Your task to perform on an android device: install app "Mercado Libre" Image 0: 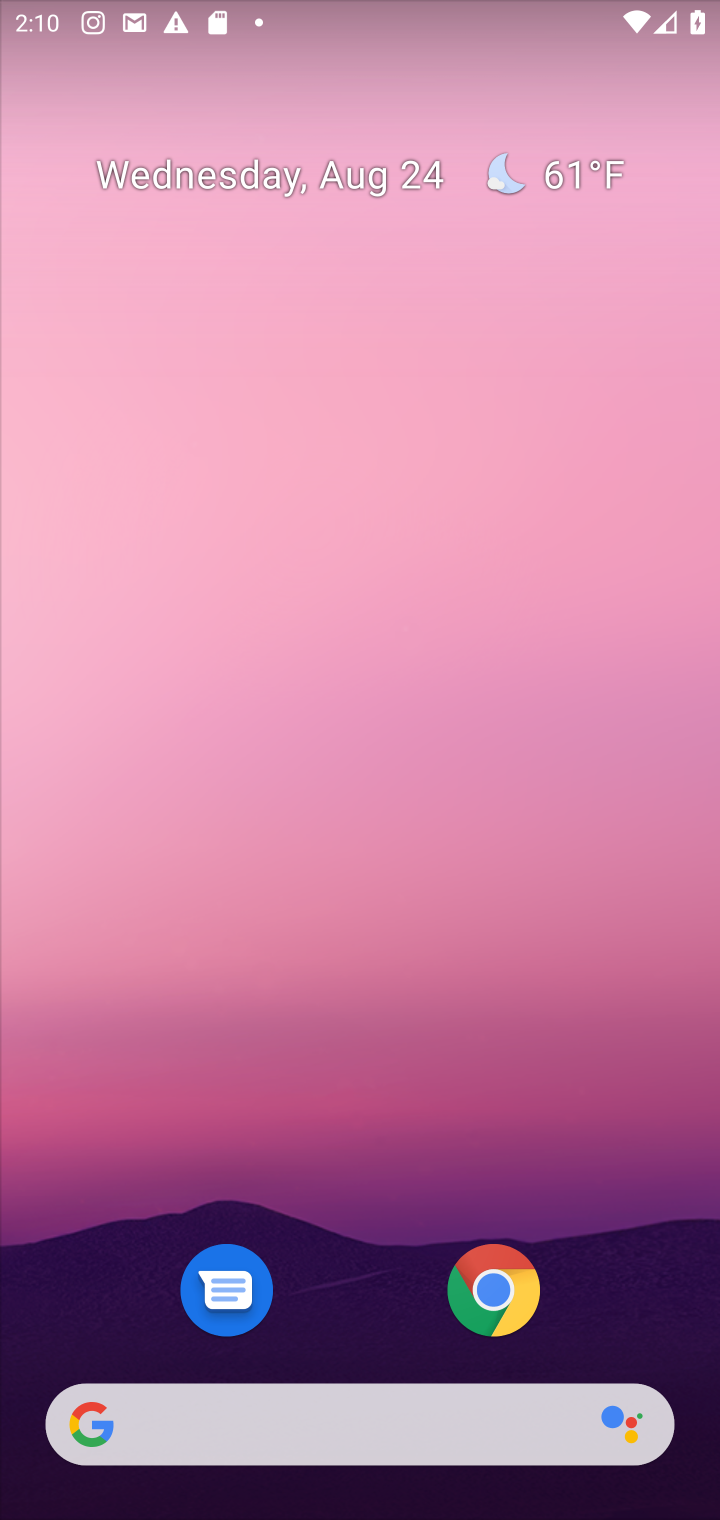
Step 0: drag from (347, 928) to (314, 79)
Your task to perform on an android device: install app "Mercado Libre" Image 1: 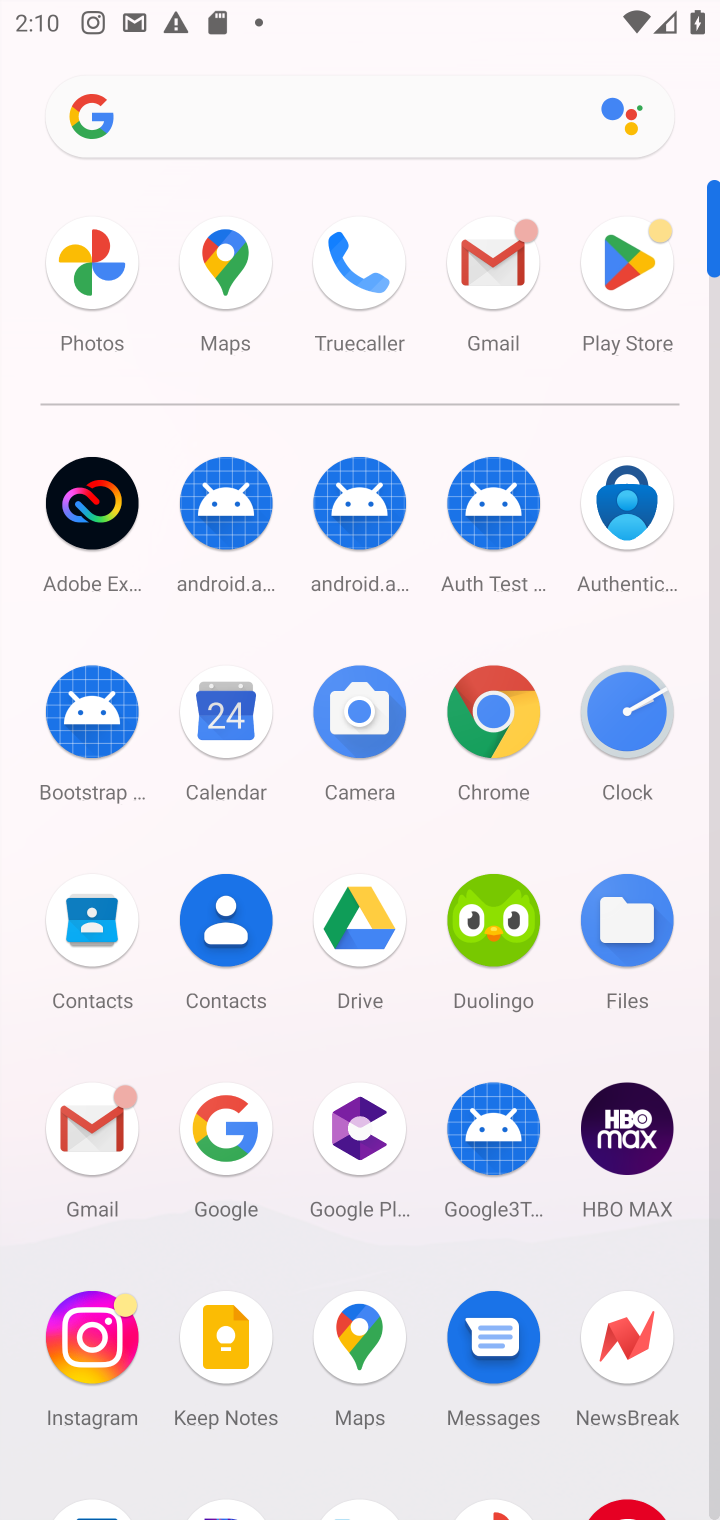
Step 1: click (624, 259)
Your task to perform on an android device: install app "Mercado Libre" Image 2: 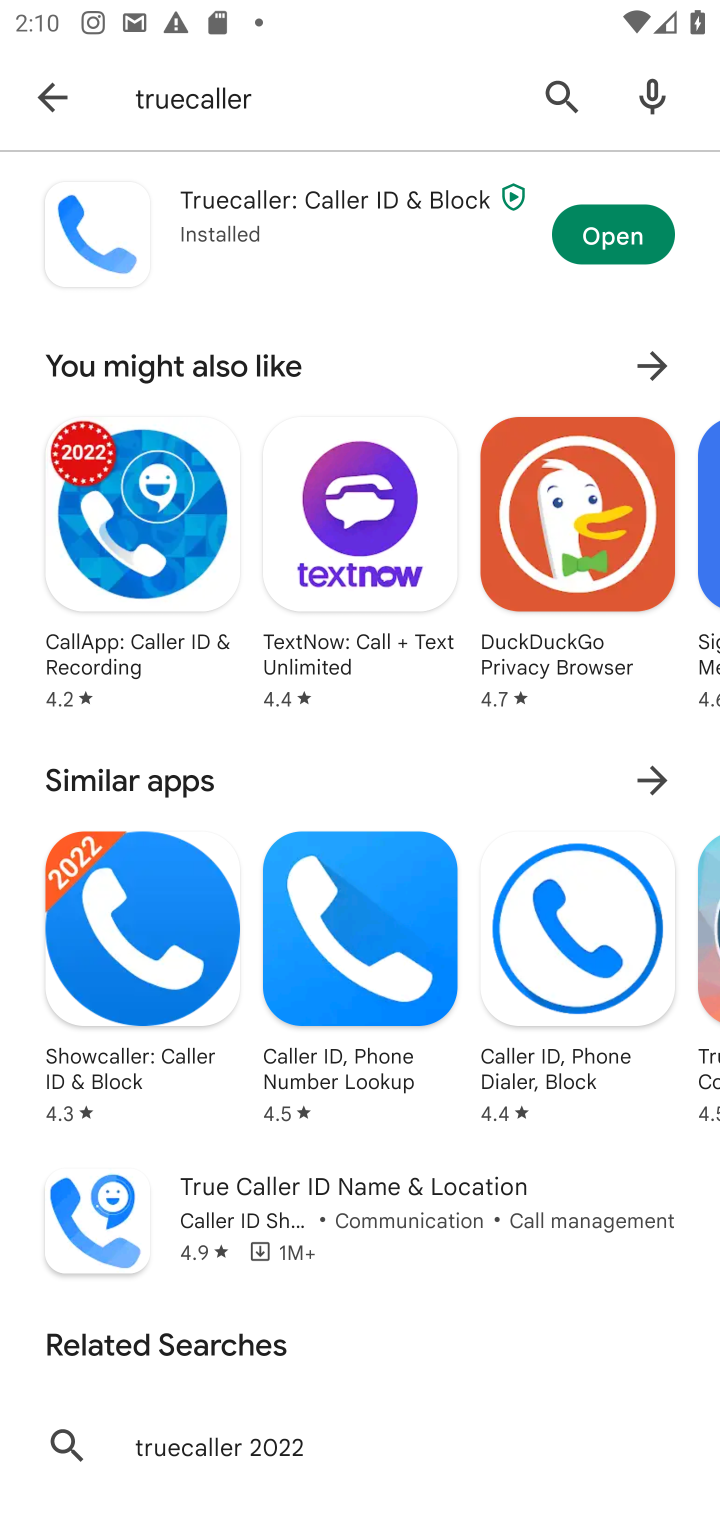
Step 2: click (39, 98)
Your task to perform on an android device: install app "Mercado Libre" Image 3: 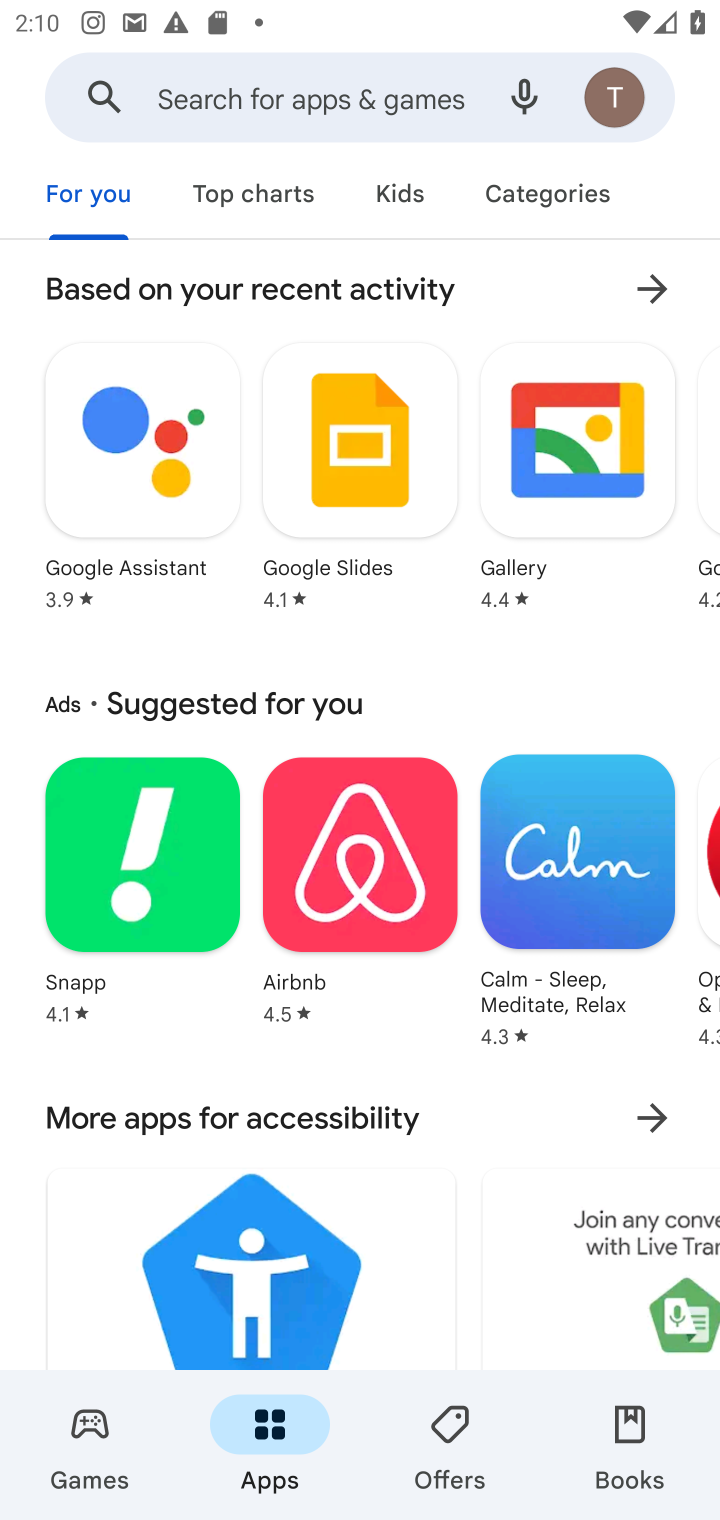
Step 3: click (265, 111)
Your task to perform on an android device: install app "Mercado Libre" Image 4: 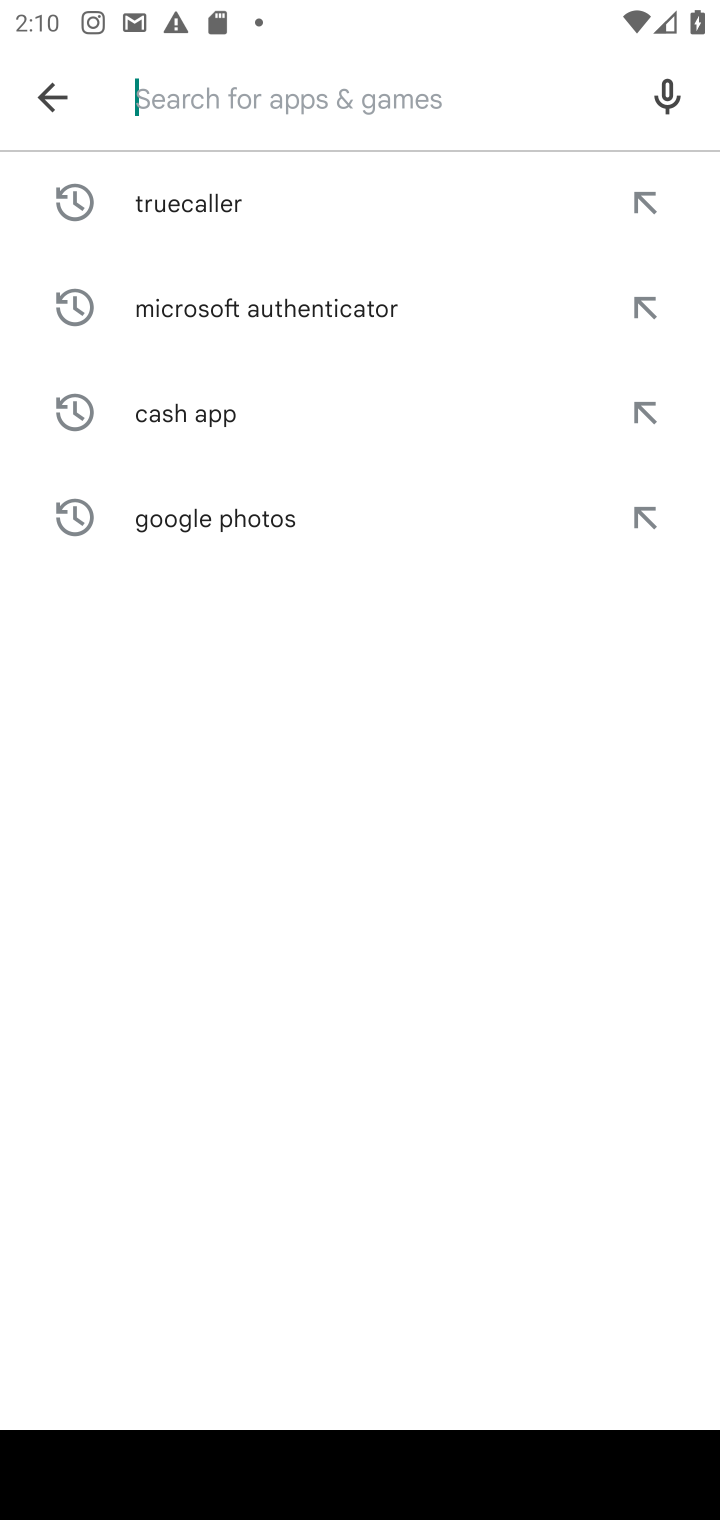
Step 4: type "Mercado Libre"
Your task to perform on an android device: install app "Mercado Libre" Image 5: 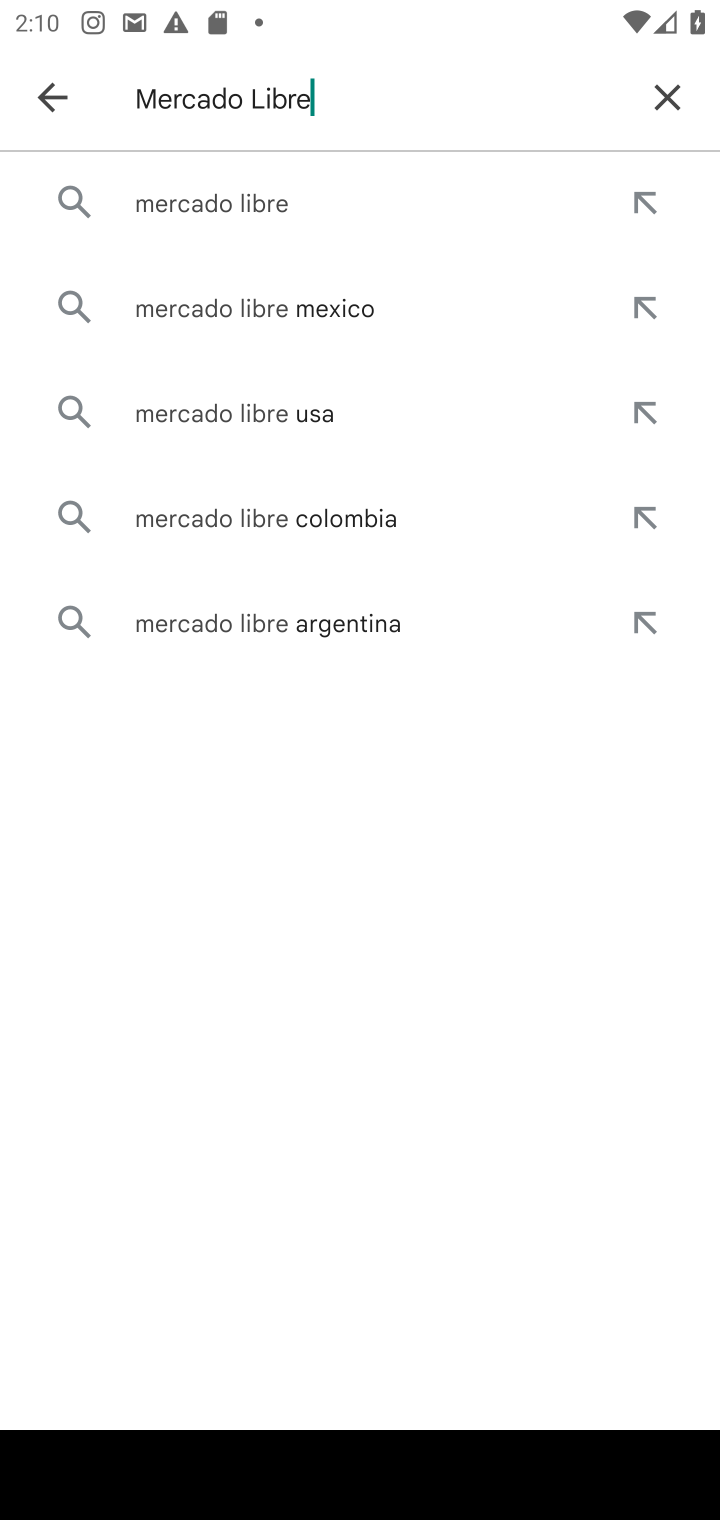
Step 5: click (201, 208)
Your task to perform on an android device: install app "Mercado Libre" Image 6: 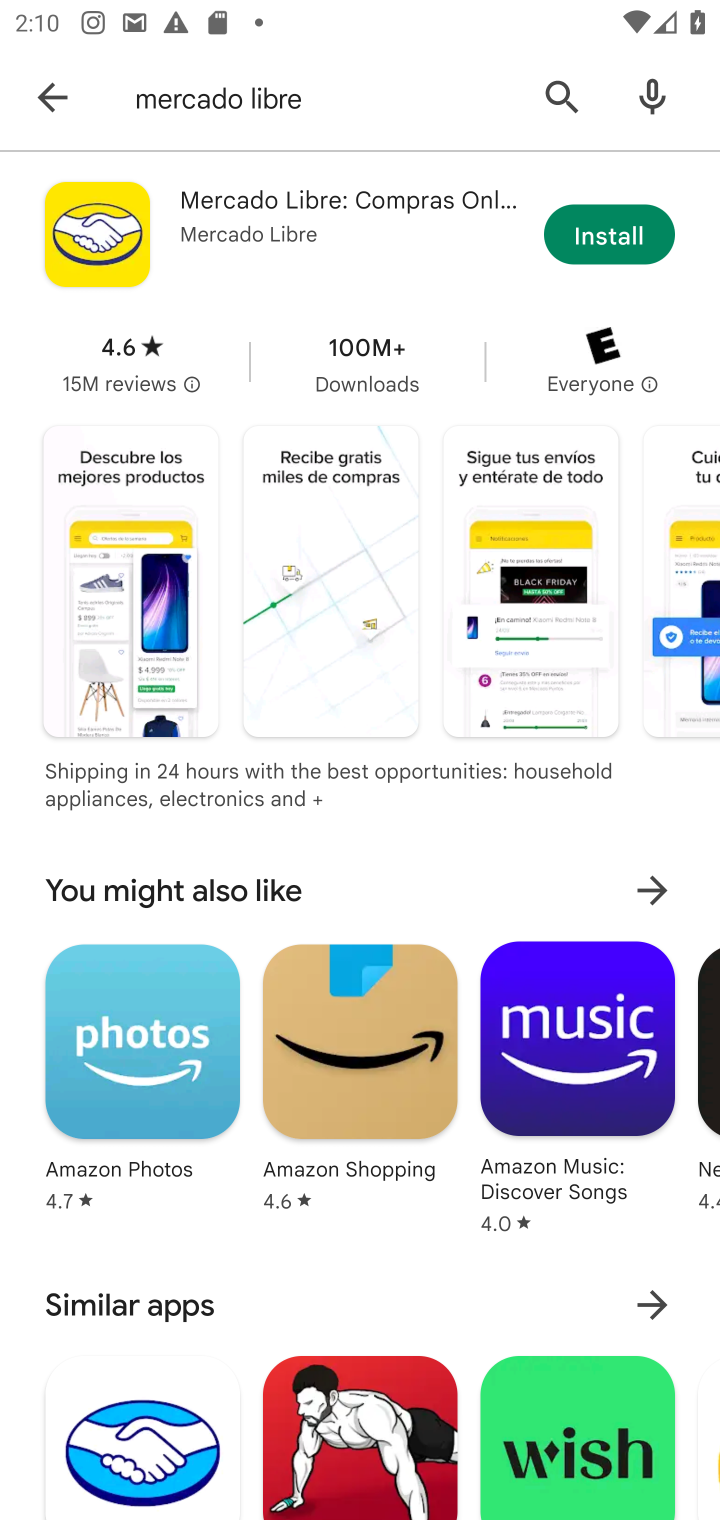
Step 6: click (617, 235)
Your task to perform on an android device: install app "Mercado Libre" Image 7: 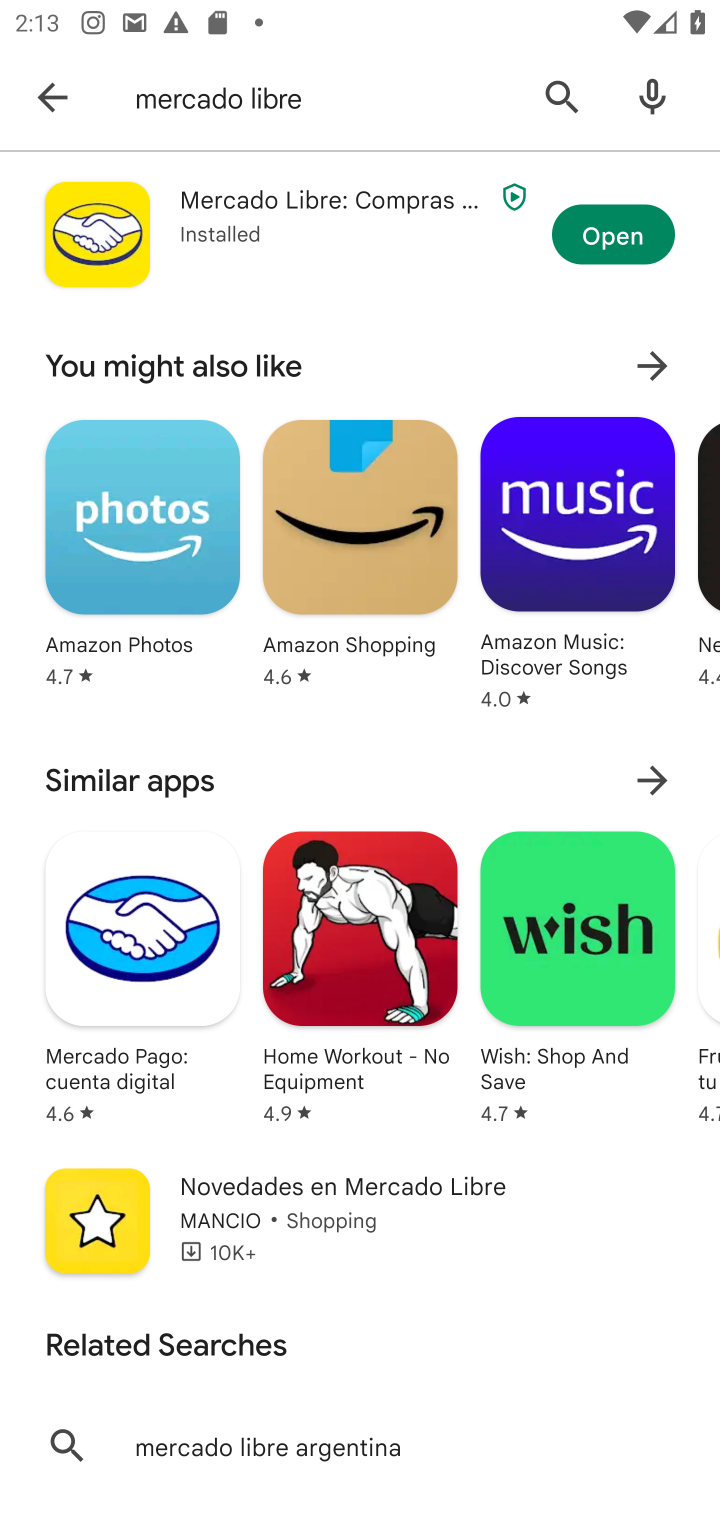
Step 7: click (594, 236)
Your task to perform on an android device: install app "Mercado Libre" Image 8: 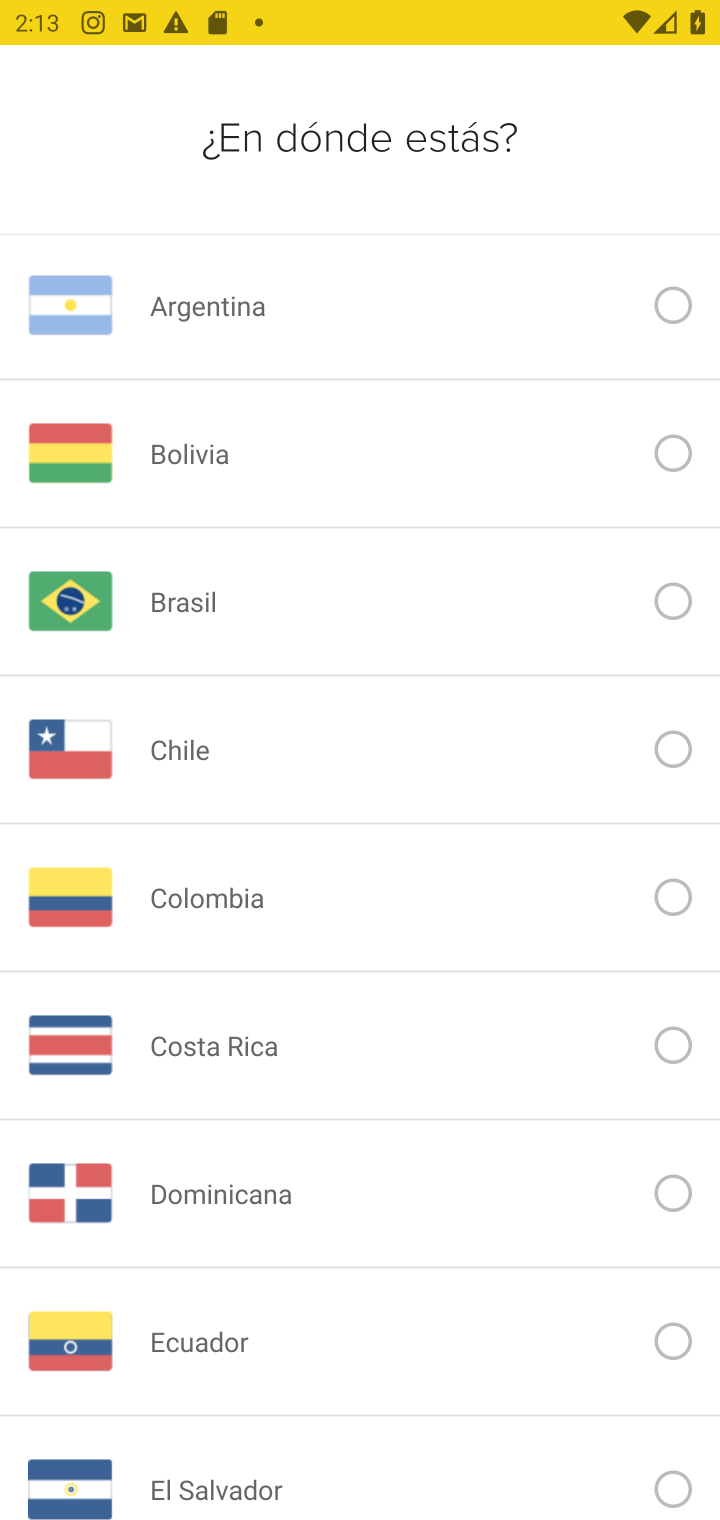
Step 8: task complete